Your task to perform on an android device: Open sound settings Image 0: 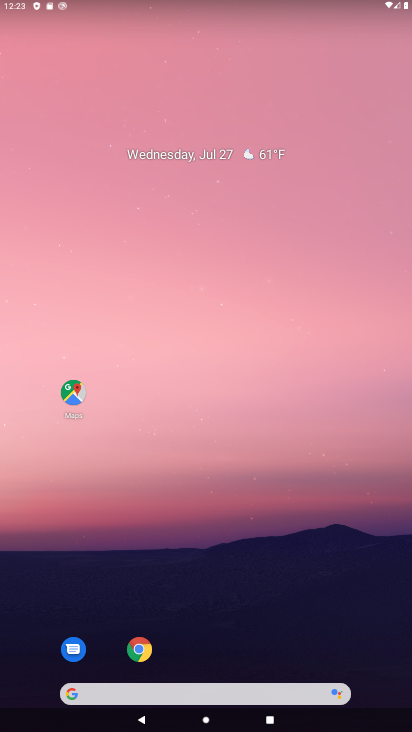
Step 0: drag from (235, 622) to (205, 160)
Your task to perform on an android device: Open sound settings Image 1: 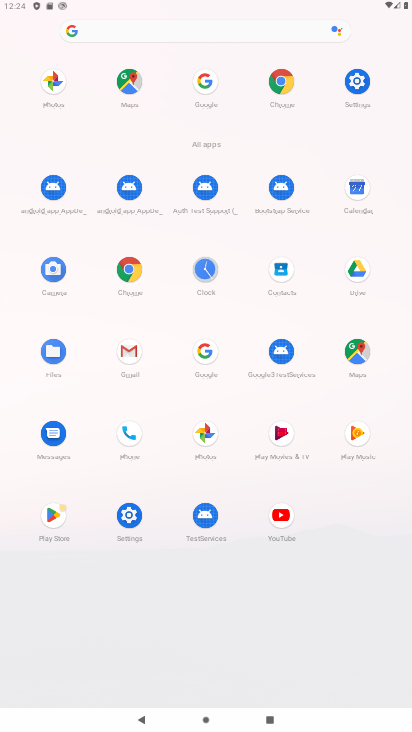
Step 1: click (356, 88)
Your task to perform on an android device: Open sound settings Image 2: 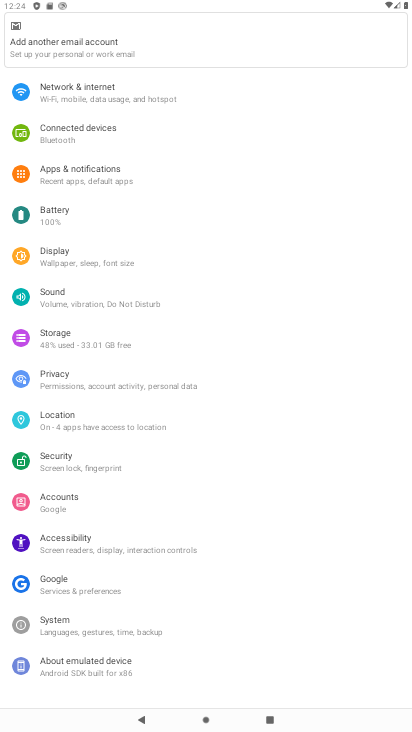
Step 2: click (112, 306)
Your task to perform on an android device: Open sound settings Image 3: 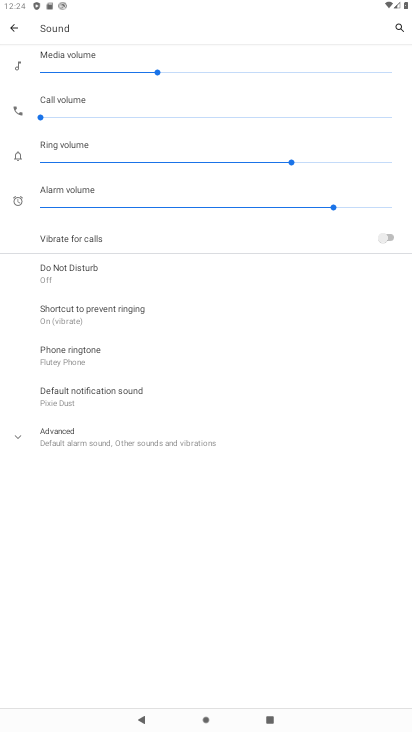
Step 3: task complete